Your task to perform on an android device: install app "Walmart Shopping & Grocery" Image 0: 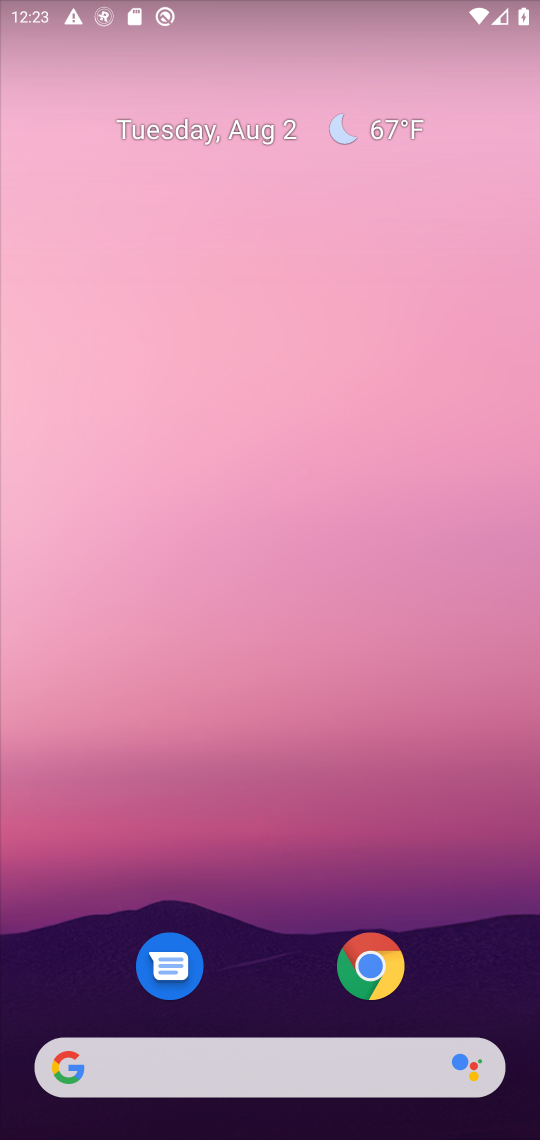
Step 0: drag from (261, 974) to (266, 94)
Your task to perform on an android device: install app "Walmart Shopping & Grocery" Image 1: 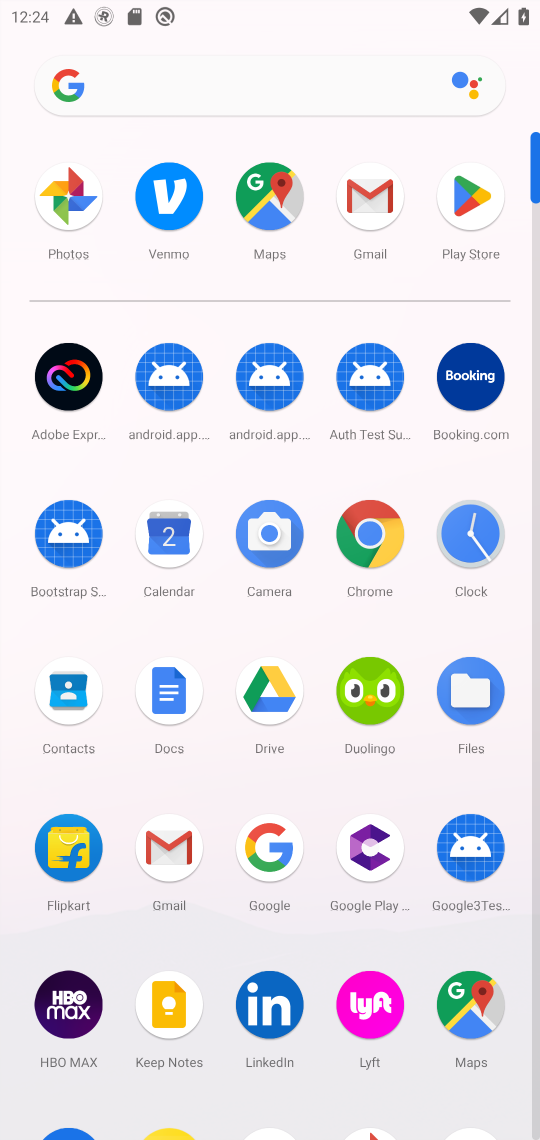
Step 1: click (474, 208)
Your task to perform on an android device: install app "Walmart Shopping & Grocery" Image 2: 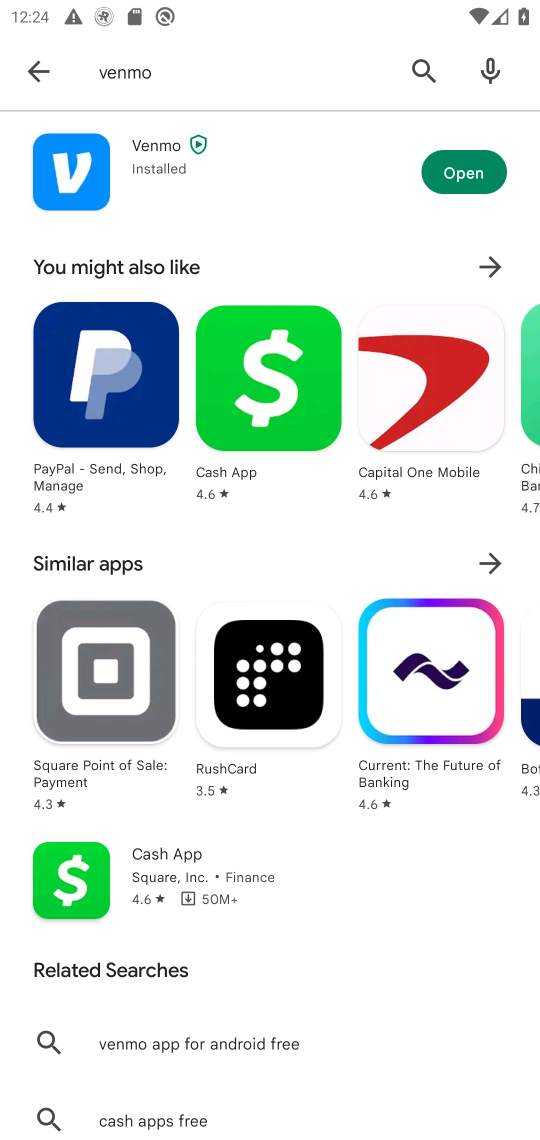
Step 2: click (415, 66)
Your task to perform on an android device: install app "Walmart Shopping & Grocery" Image 3: 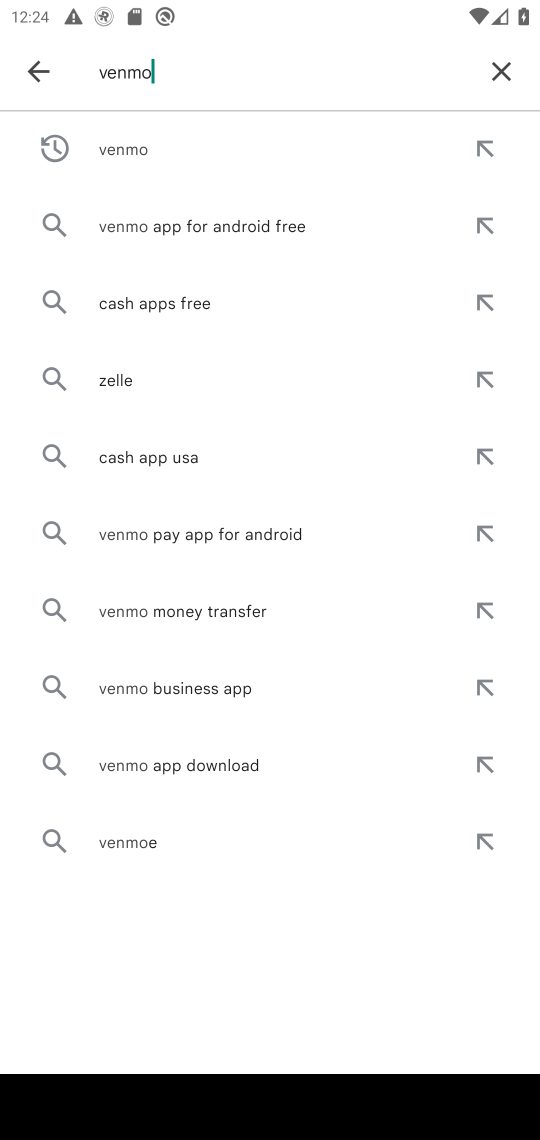
Step 3: click (496, 84)
Your task to perform on an android device: install app "Walmart Shopping & Grocery" Image 4: 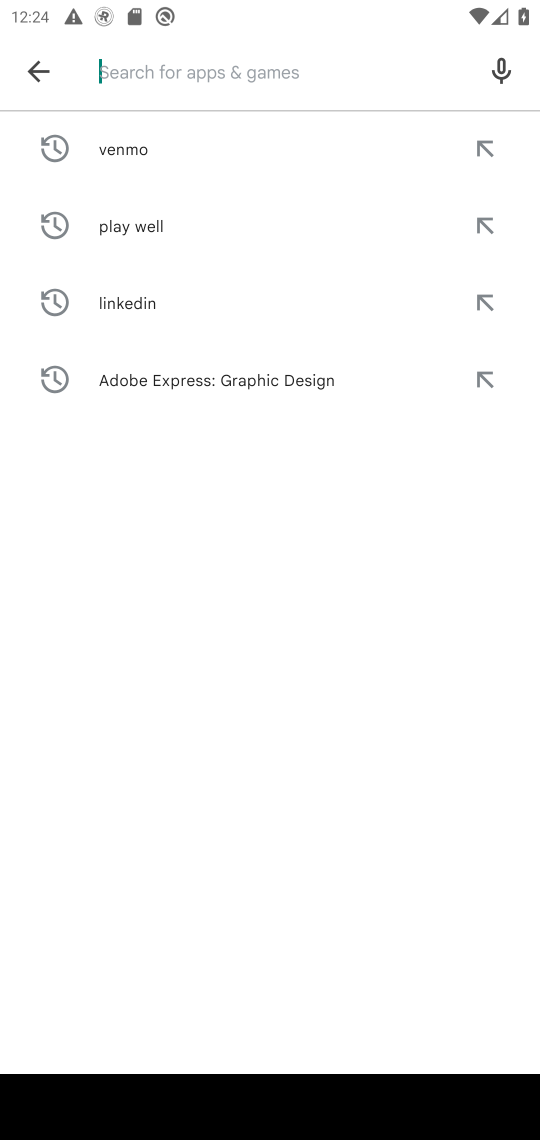
Step 4: click (293, 86)
Your task to perform on an android device: install app "Walmart Shopping & Grocery" Image 5: 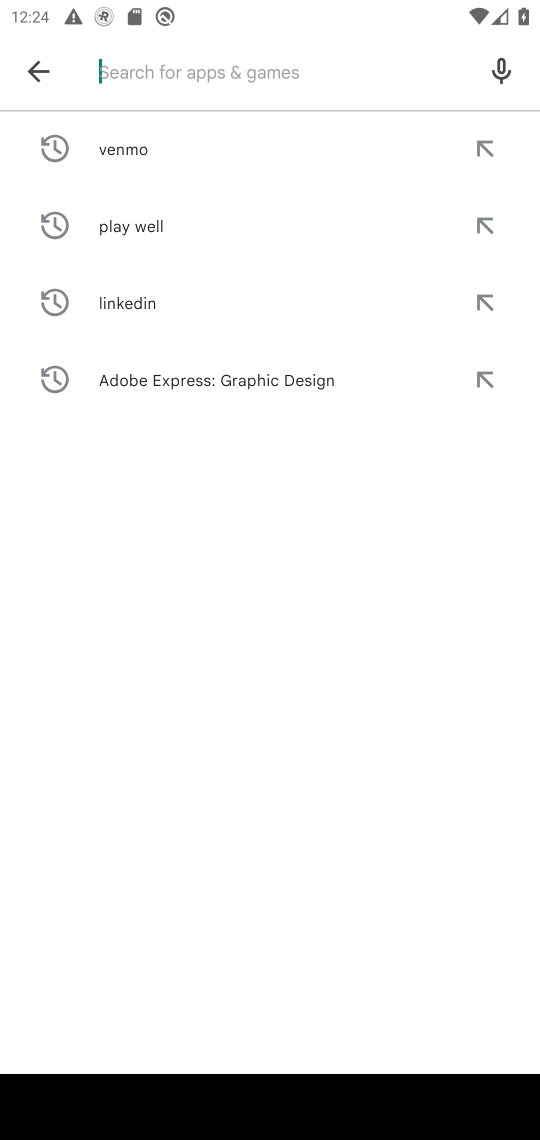
Step 5: type "walmart shopping grocery"
Your task to perform on an android device: install app "Walmart Shopping & Grocery" Image 6: 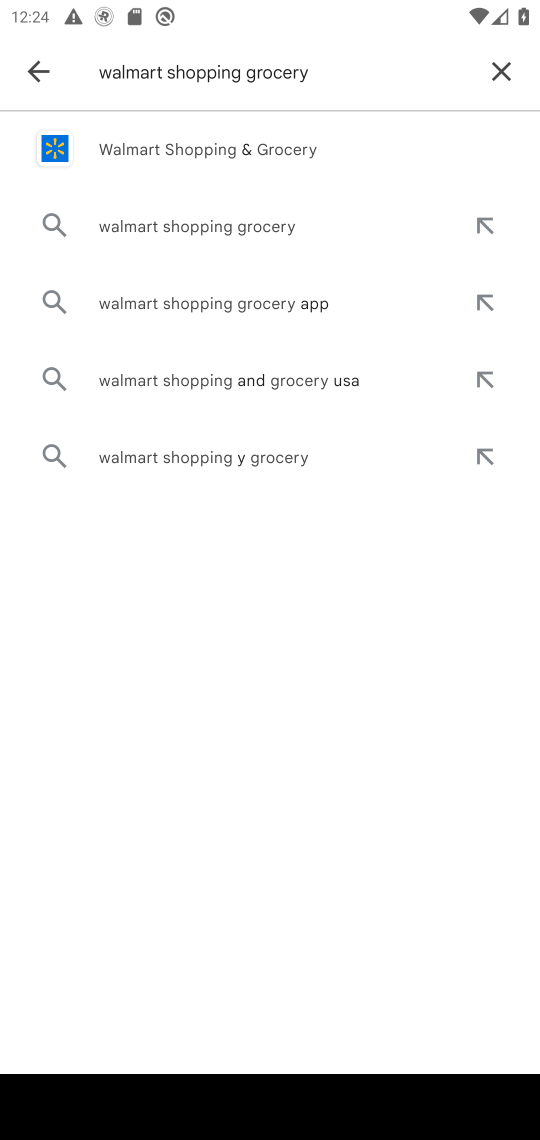
Step 6: click (196, 151)
Your task to perform on an android device: install app "Walmart Shopping & Grocery" Image 7: 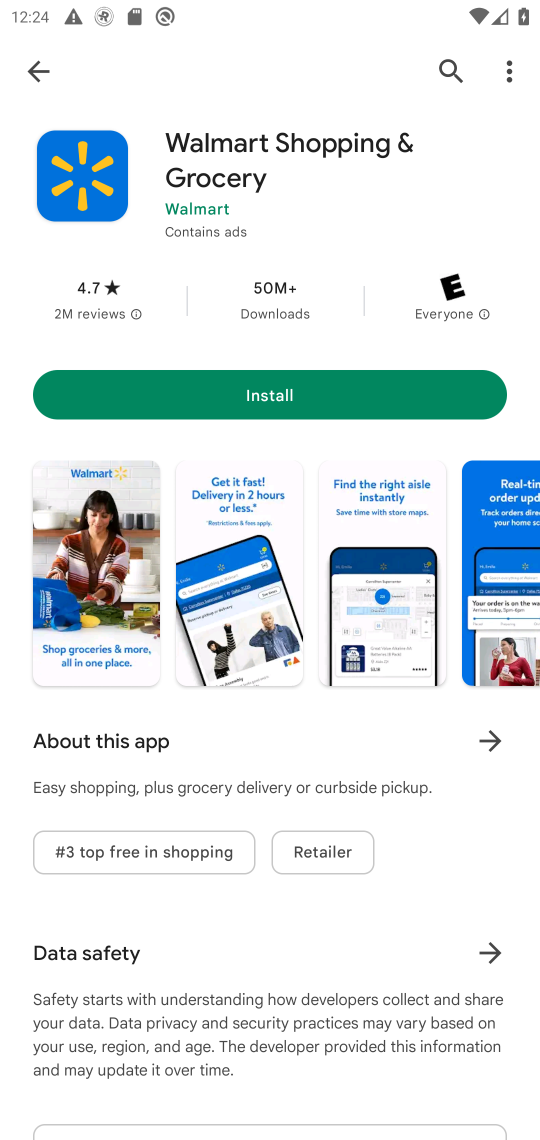
Step 7: click (339, 393)
Your task to perform on an android device: install app "Walmart Shopping & Grocery" Image 8: 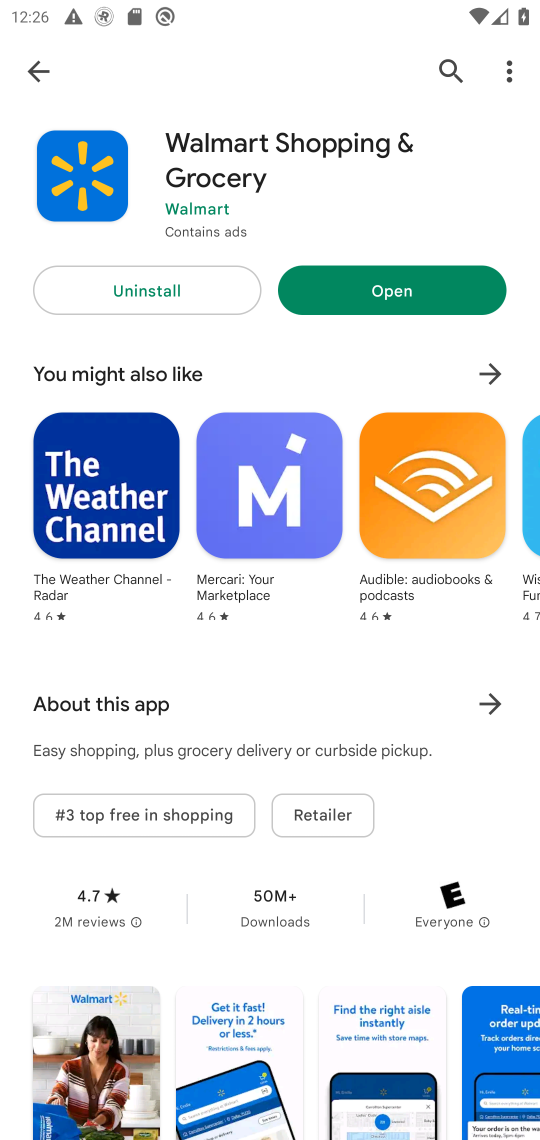
Step 8: task complete